Your task to perform on an android device: Open network settings Image 0: 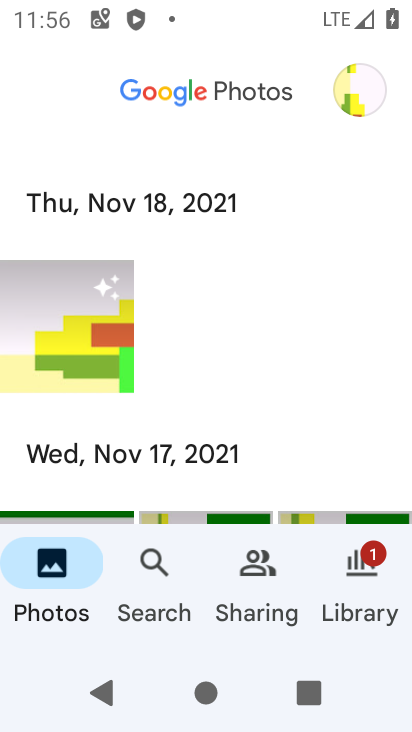
Step 0: press back button
Your task to perform on an android device: Open network settings Image 1: 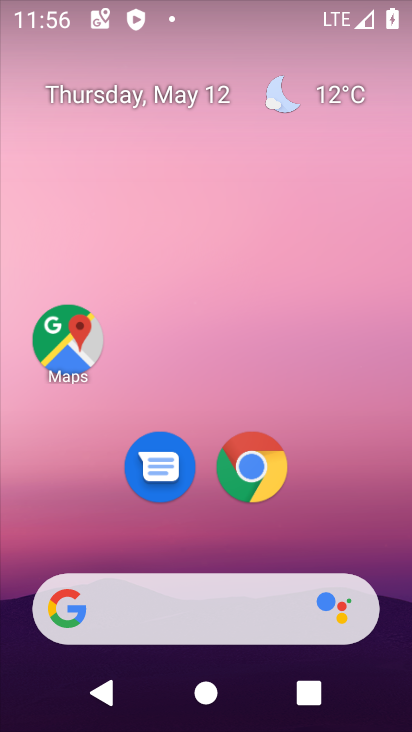
Step 1: drag from (344, 486) to (190, 4)
Your task to perform on an android device: Open network settings Image 2: 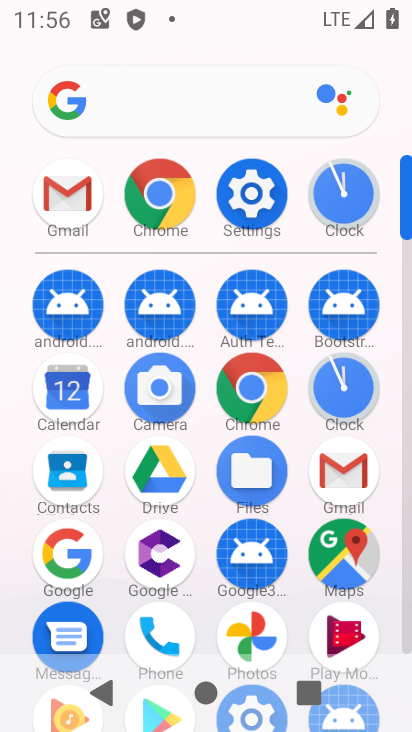
Step 2: click (251, 191)
Your task to perform on an android device: Open network settings Image 3: 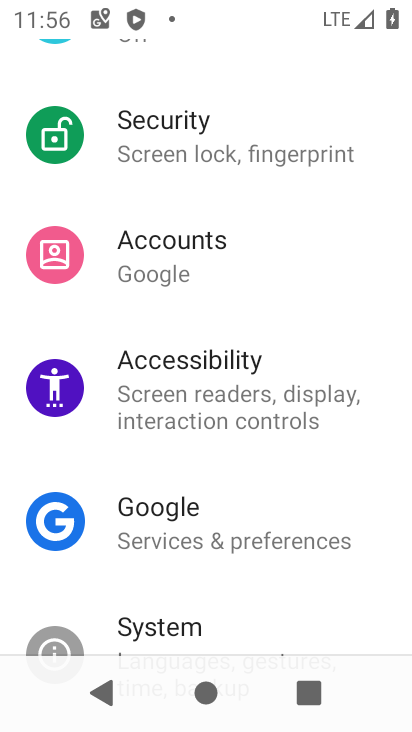
Step 3: drag from (274, 153) to (270, 569)
Your task to perform on an android device: Open network settings Image 4: 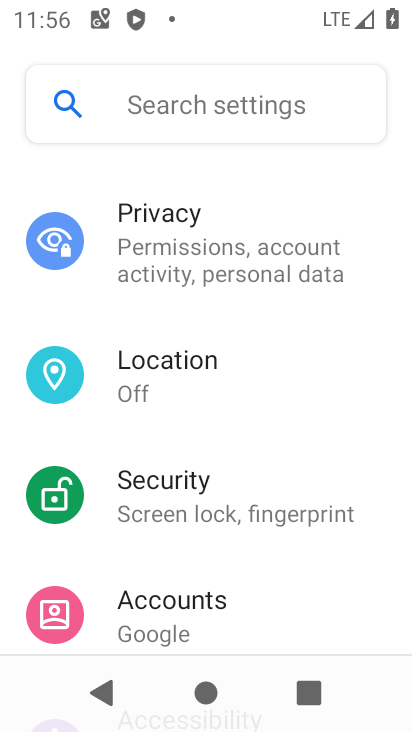
Step 4: drag from (265, 185) to (265, 525)
Your task to perform on an android device: Open network settings Image 5: 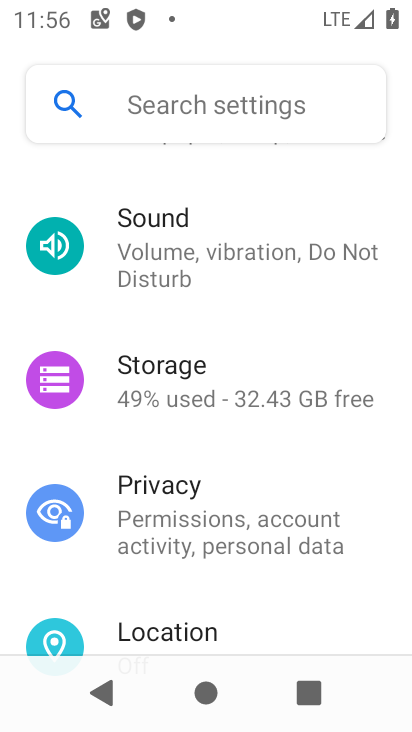
Step 5: drag from (250, 200) to (250, 535)
Your task to perform on an android device: Open network settings Image 6: 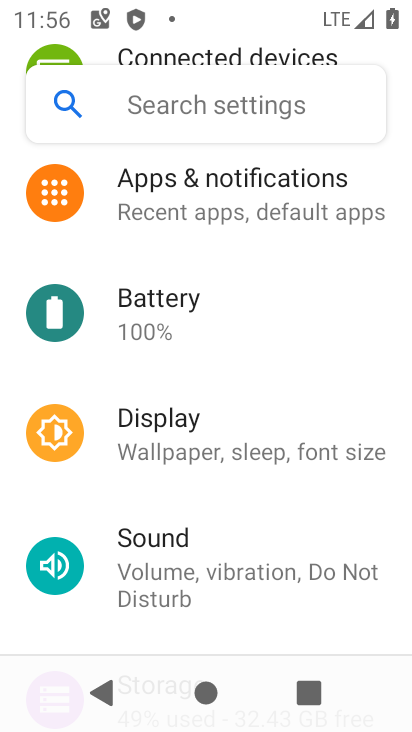
Step 6: drag from (292, 543) to (274, 255)
Your task to perform on an android device: Open network settings Image 7: 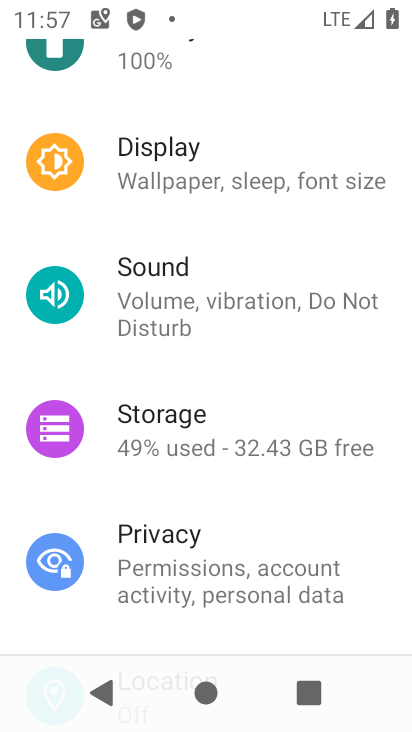
Step 7: drag from (278, 172) to (318, 546)
Your task to perform on an android device: Open network settings Image 8: 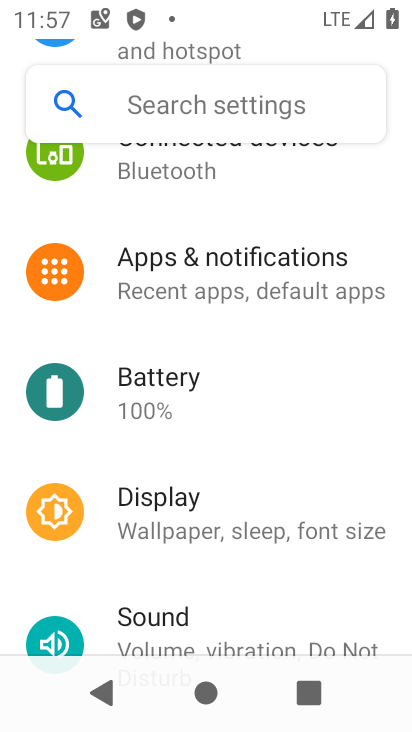
Step 8: drag from (317, 218) to (306, 574)
Your task to perform on an android device: Open network settings Image 9: 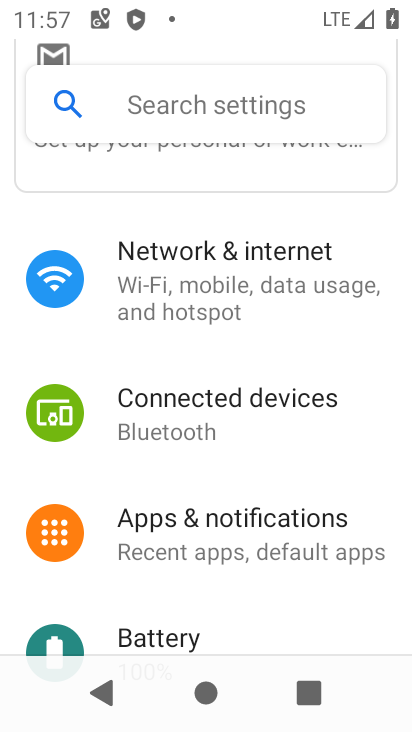
Step 9: click (257, 276)
Your task to perform on an android device: Open network settings Image 10: 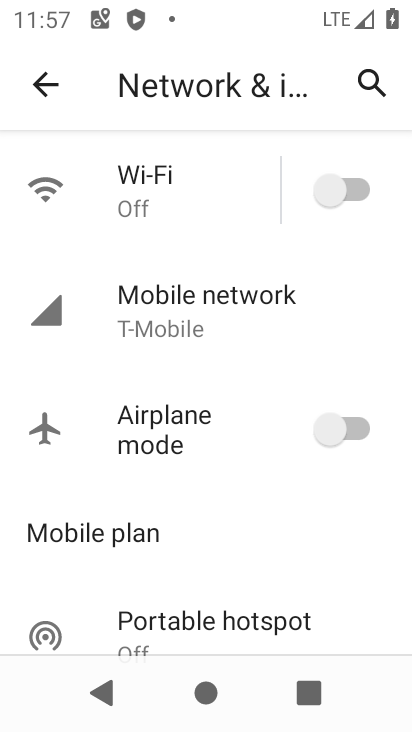
Step 10: task complete